Your task to perform on an android device: What's the weather going to be tomorrow? Image 0: 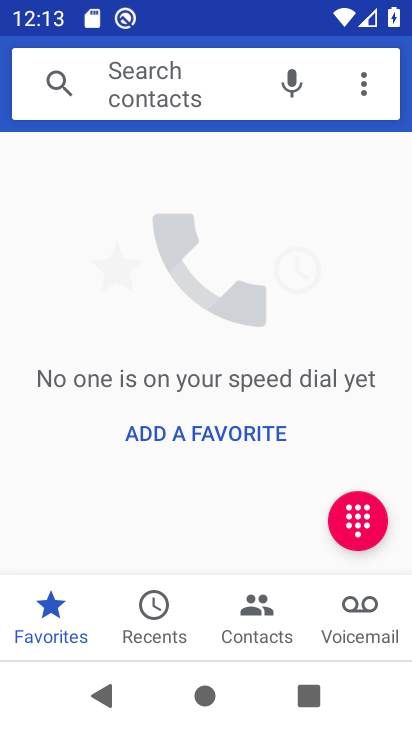
Step 0: press home button
Your task to perform on an android device: What's the weather going to be tomorrow? Image 1: 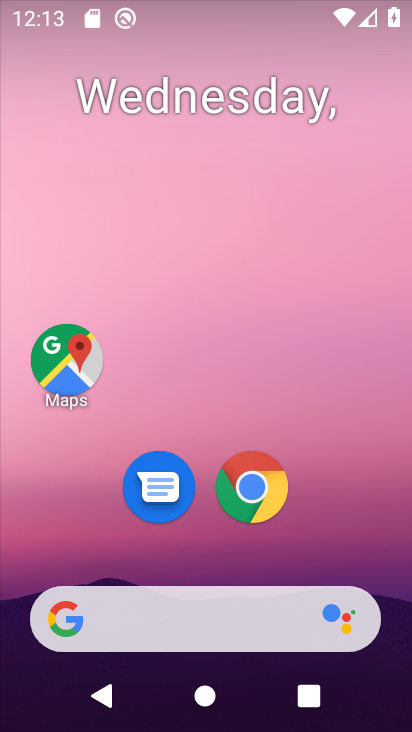
Step 1: click (133, 628)
Your task to perform on an android device: What's the weather going to be tomorrow? Image 2: 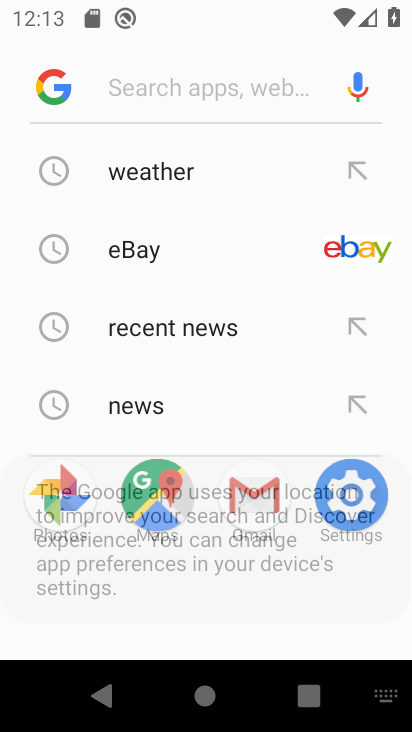
Step 2: click (138, 169)
Your task to perform on an android device: What's the weather going to be tomorrow? Image 3: 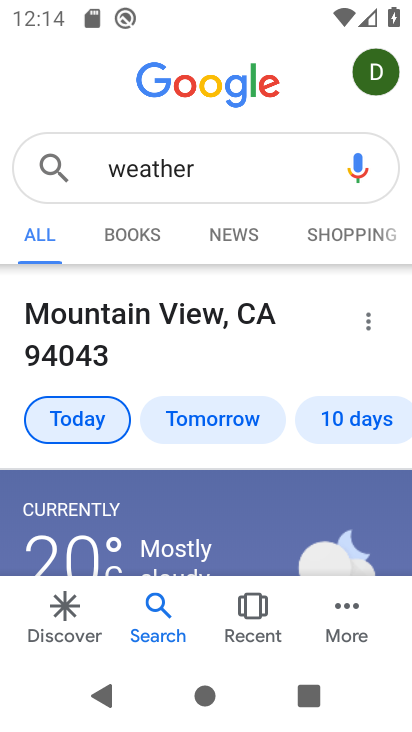
Step 3: click (214, 425)
Your task to perform on an android device: What's the weather going to be tomorrow? Image 4: 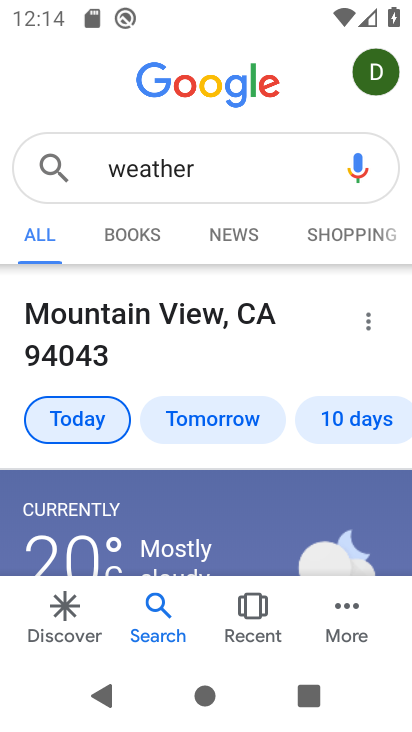
Step 4: click (219, 416)
Your task to perform on an android device: What's the weather going to be tomorrow? Image 5: 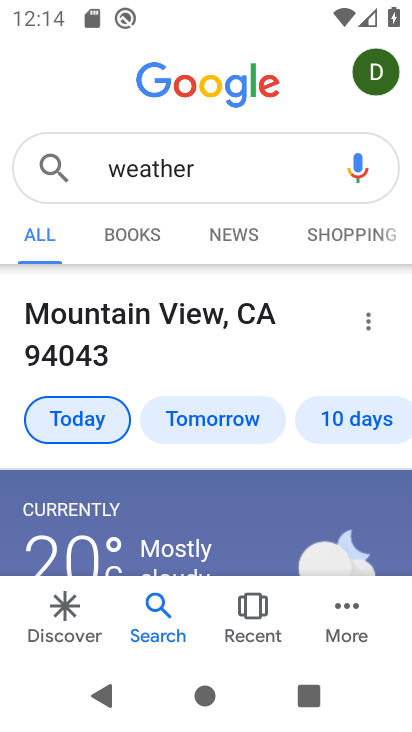
Step 5: task complete